Your task to perform on an android device: Search for pizza restaurants on Maps Image 0: 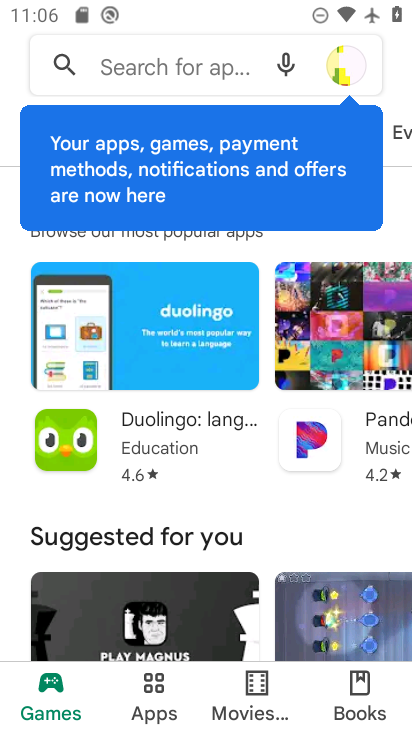
Step 0: press back button
Your task to perform on an android device: Search for pizza restaurants on Maps Image 1: 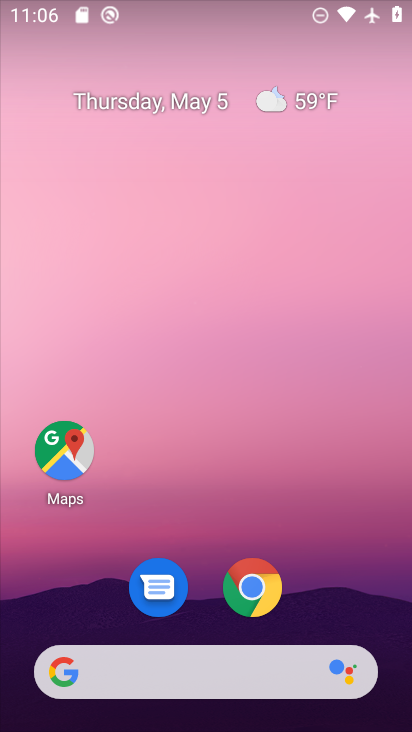
Step 1: drag from (297, 597) to (269, 0)
Your task to perform on an android device: Search for pizza restaurants on Maps Image 2: 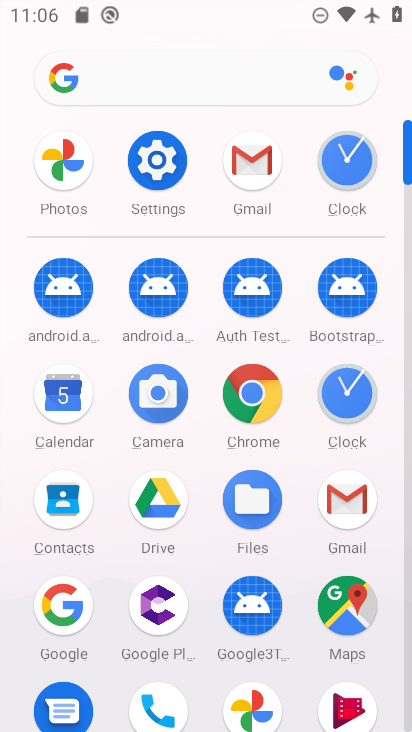
Step 2: click (347, 601)
Your task to perform on an android device: Search for pizza restaurants on Maps Image 3: 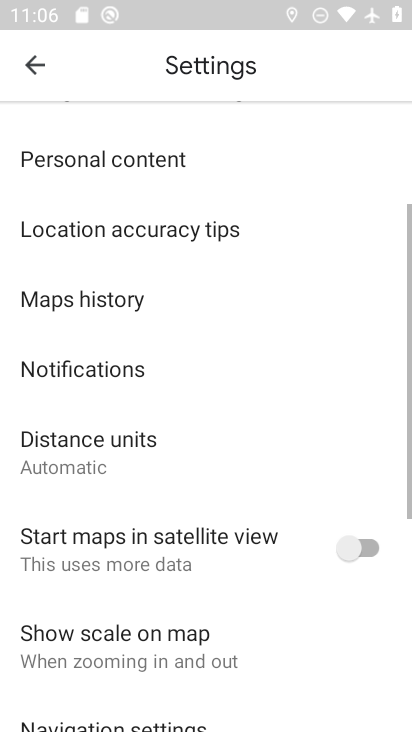
Step 3: click (30, 60)
Your task to perform on an android device: Search for pizza restaurants on Maps Image 4: 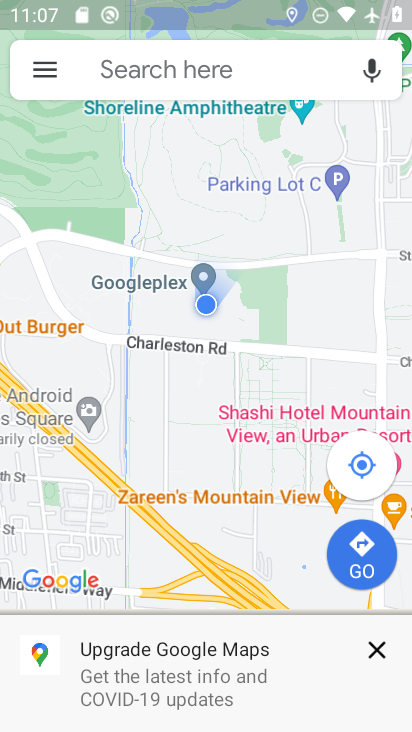
Step 4: click (253, 57)
Your task to perform on an android device: Search for pizza restaurants on Maps Image 5: 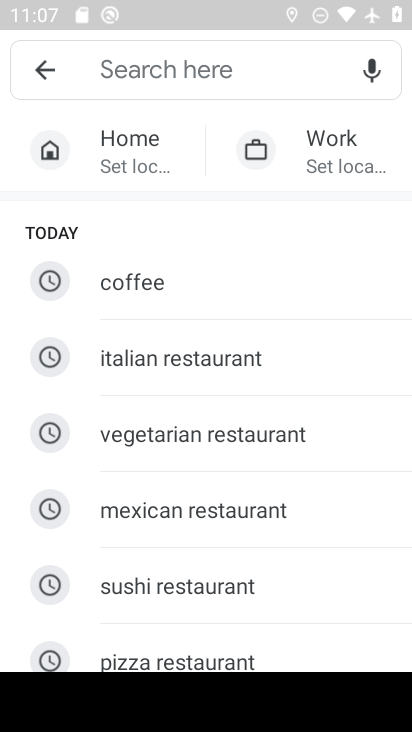
Step 5: click (223, 665)
Your task to perform on an android device: Search for pizza restaurants on Maps Image 6: 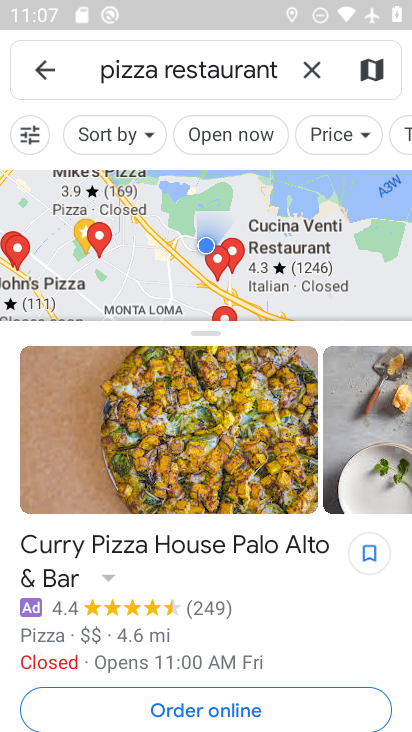
Step 6: task complete